Your task to perform on an android device: Open the Play Movies app and select the watchlist tab. Image 0: 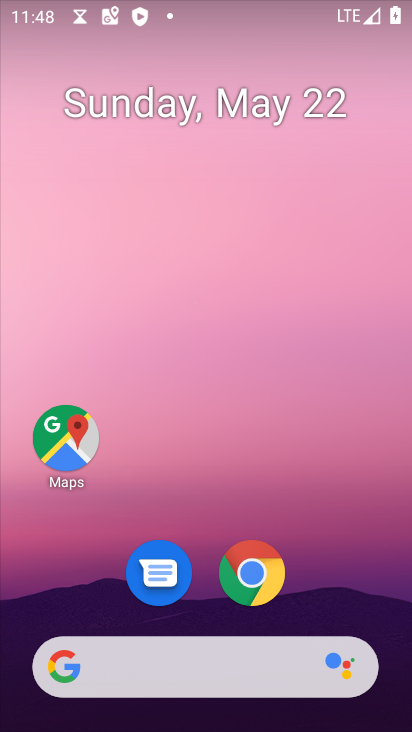
Step 0: drag from (129, 657) to (245, 271)
Your task to perform on an android device: Open the Play Movies app and select the watchlist tab. Image 1: 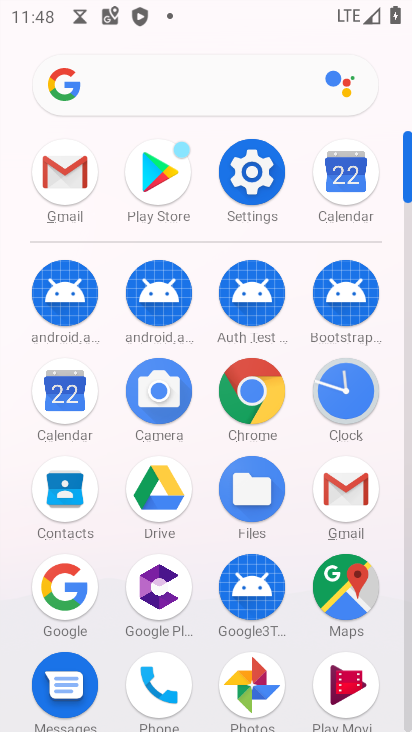
Step 1: drag from (270, 653) to (302, 426)
Your task to perform on an android device: Open the Play Movies app and select the watchlist tab. Image 2: 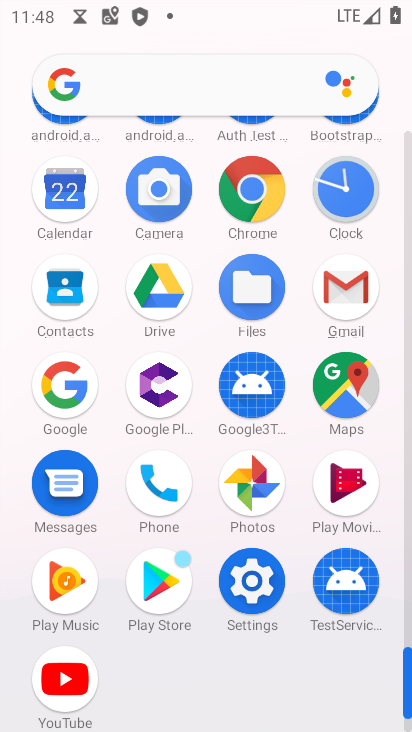
Step 2: click (350, 484)
Your task to perform on an android device: Open the Play Movies app and select the watchlist tab. Image 3: 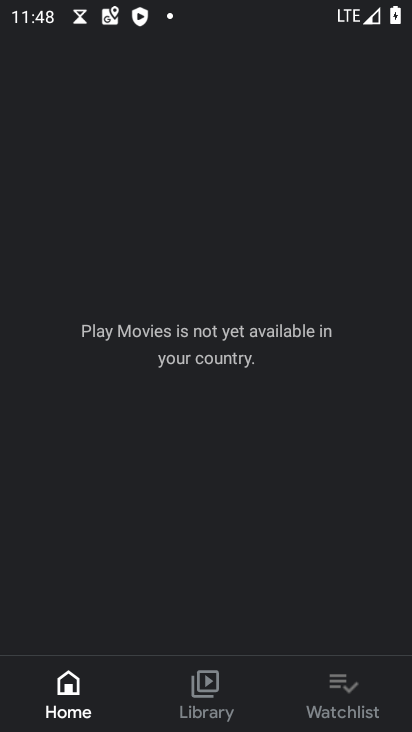
Step 3: click (330, 696)
Your task to perform on an android device: Open the Play Movies app and select the watchlist tab. Image 4: 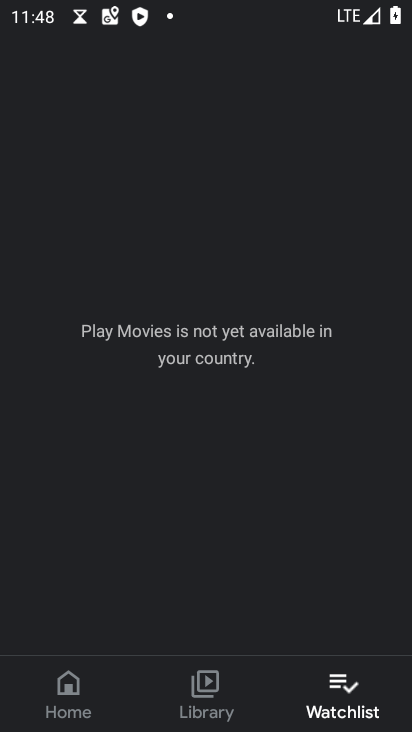
Step 4: task complete